Your task to perform on an android device: toggle improve location accuracy Image 0: 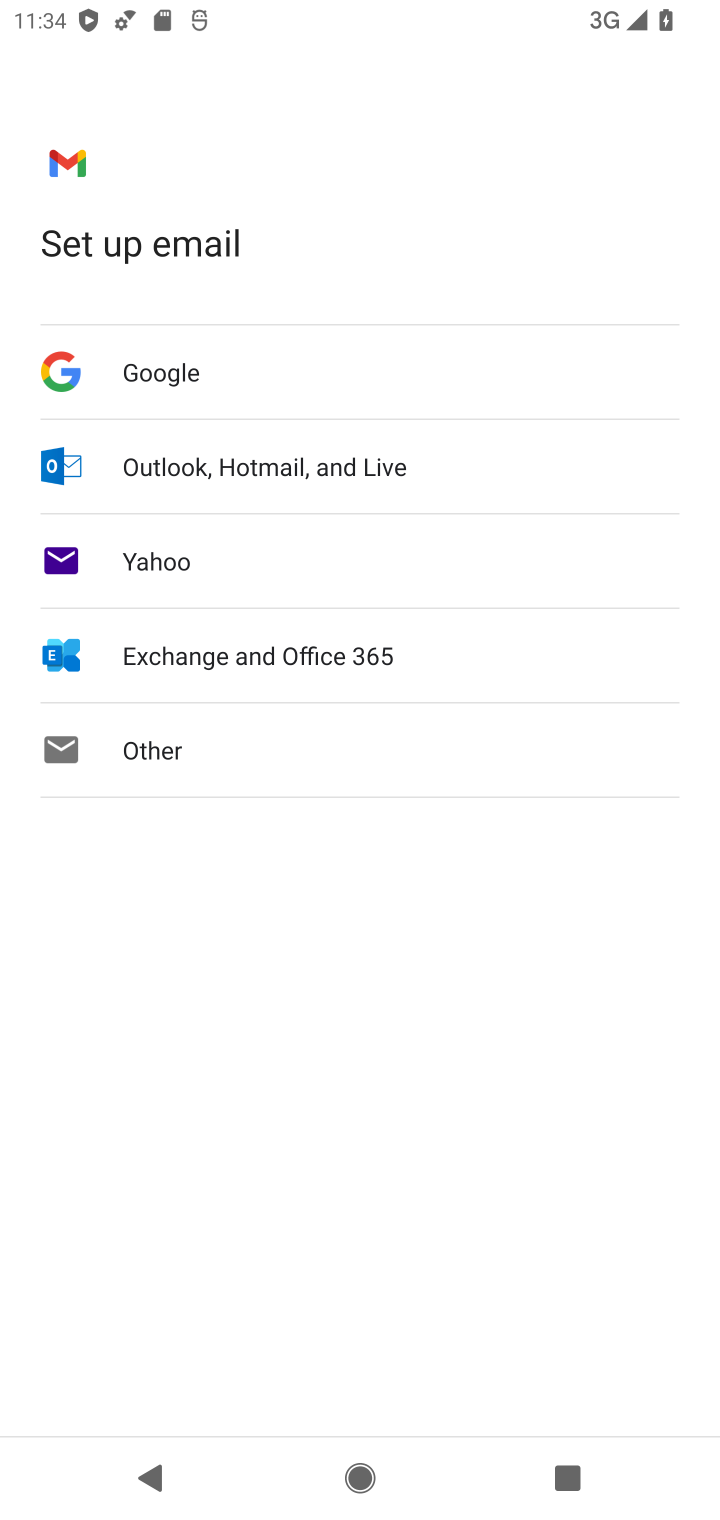
Step 0: press home button
Your task to perform on an android device: toggle improve location accuracy Image 1: 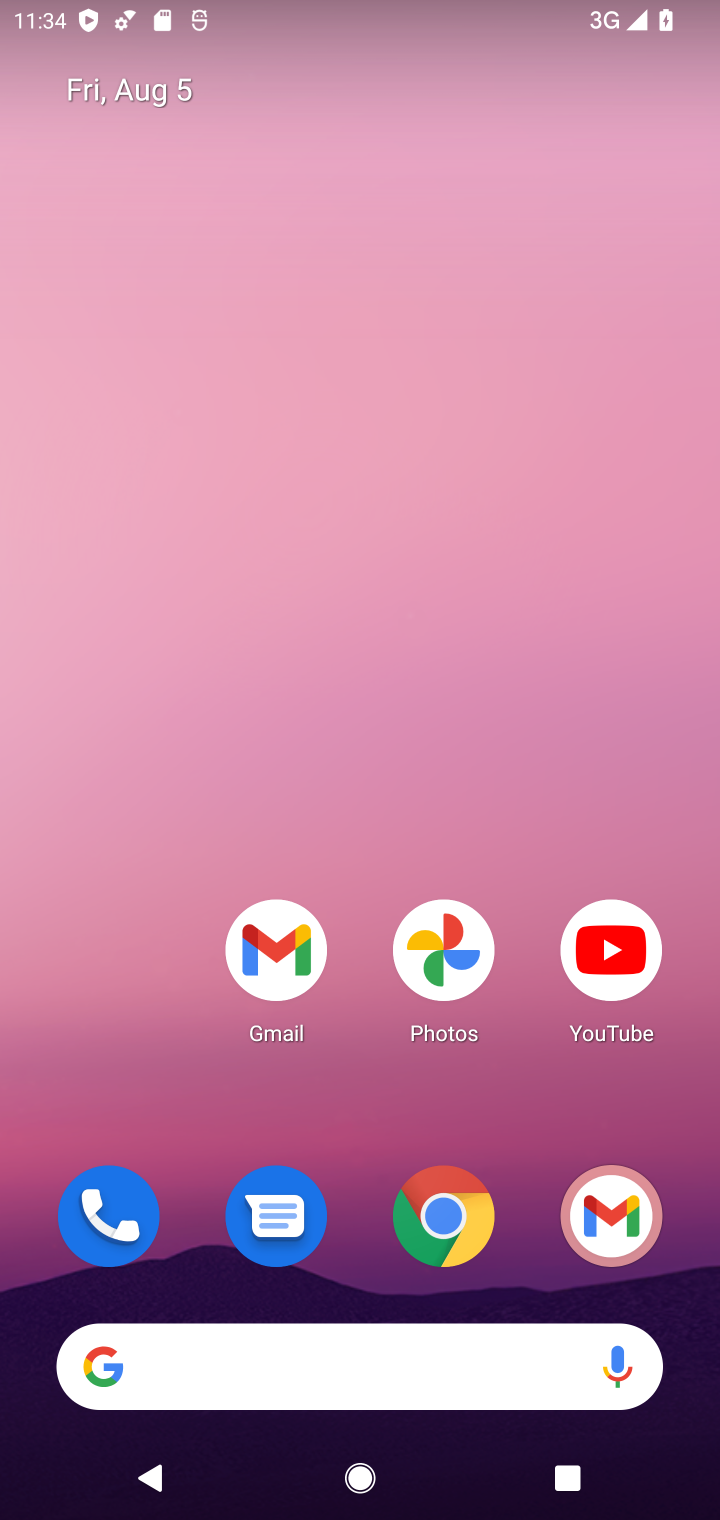
Step 1: drag from (342, 1360) to (361, 165)
Your task to perform on an android device: toggle improve location accuracy Image 2: 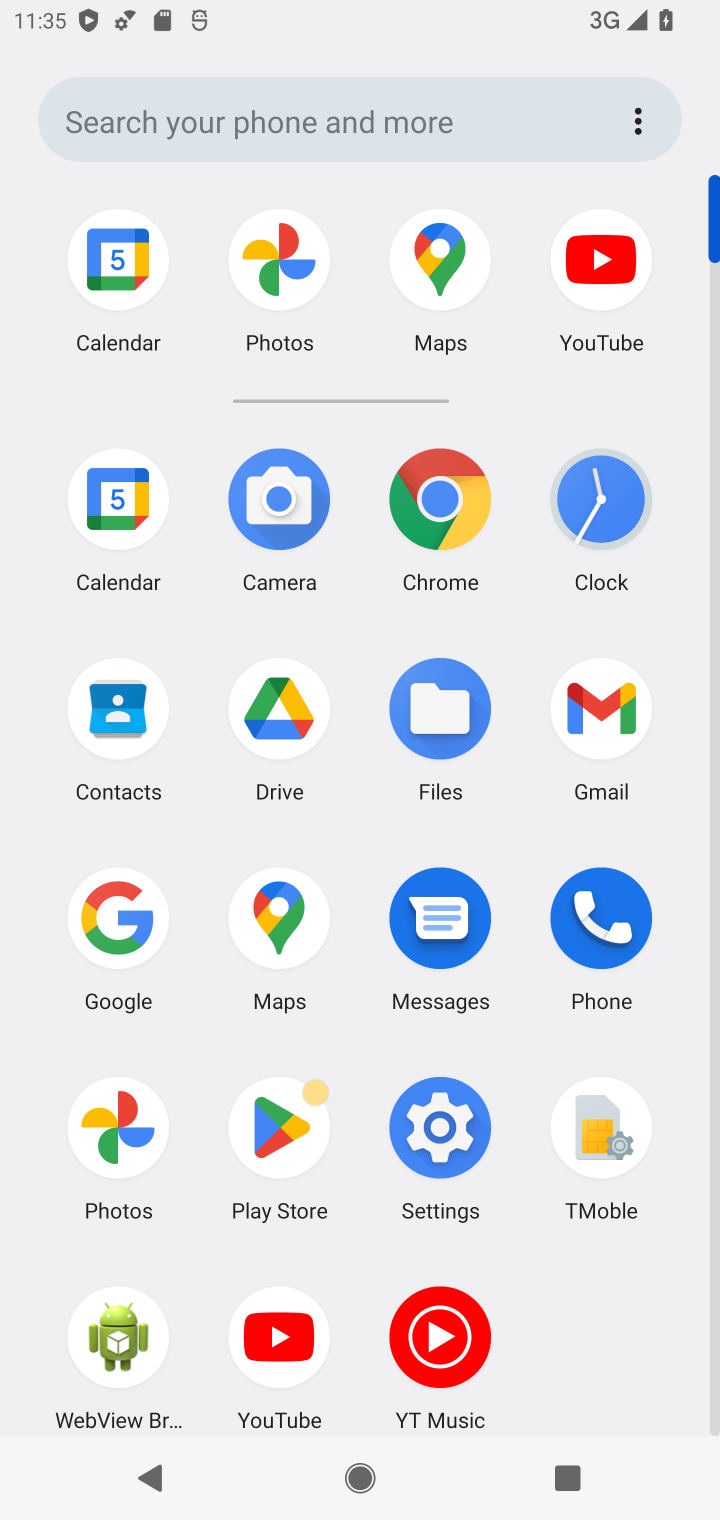
Step 2: click (437, 1128)
Your task to perform on an android device: toggle improve location accuracy Image 3: 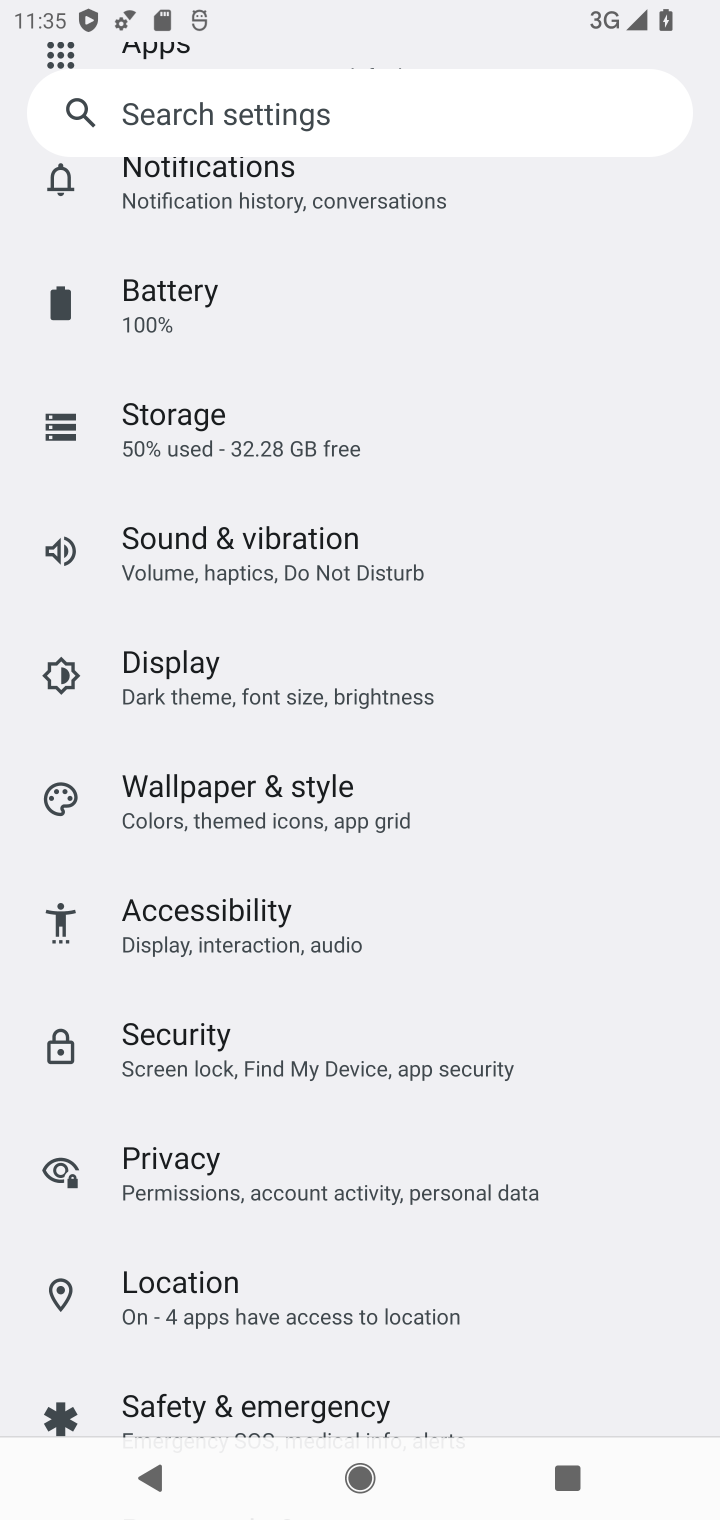
Step 3: click (236, 1285)
Your task to perform on an android device: toggle improve location accuracy Image 4: 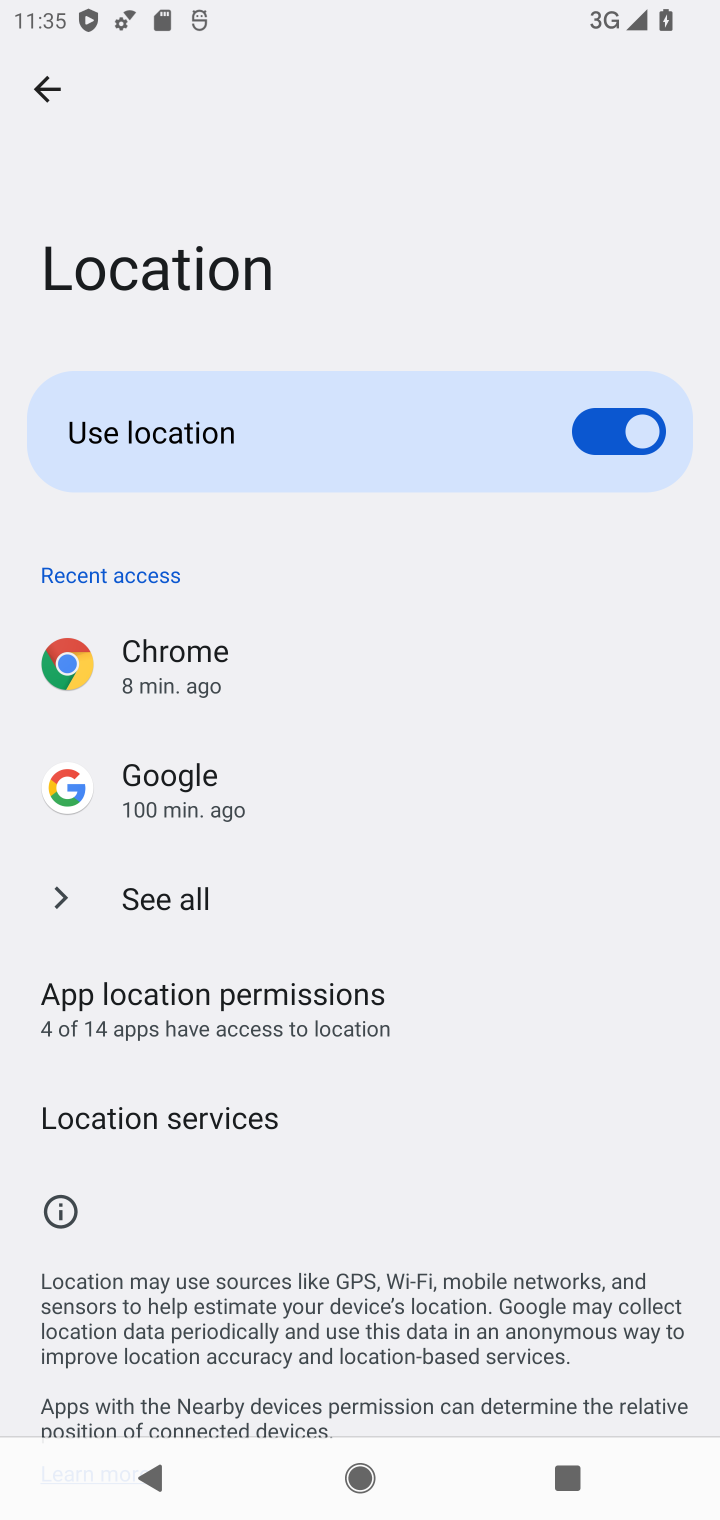
Step 4: click (290, 1124)
Your task to perform on an android device: toggle improve location accuracy Image 5: 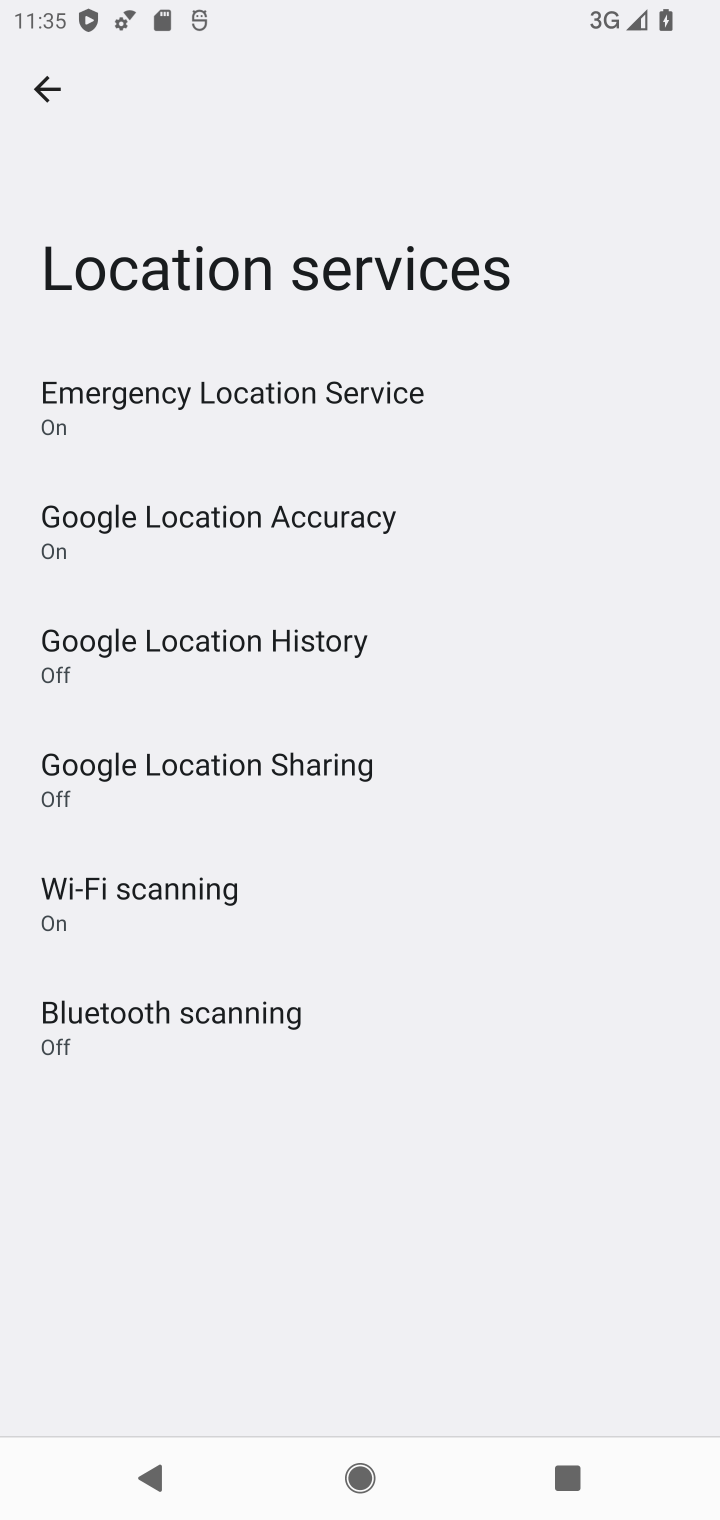
Step 5: click (282, 513)
Your task to perform on an android device: toggle improve location accuracy Image 6: 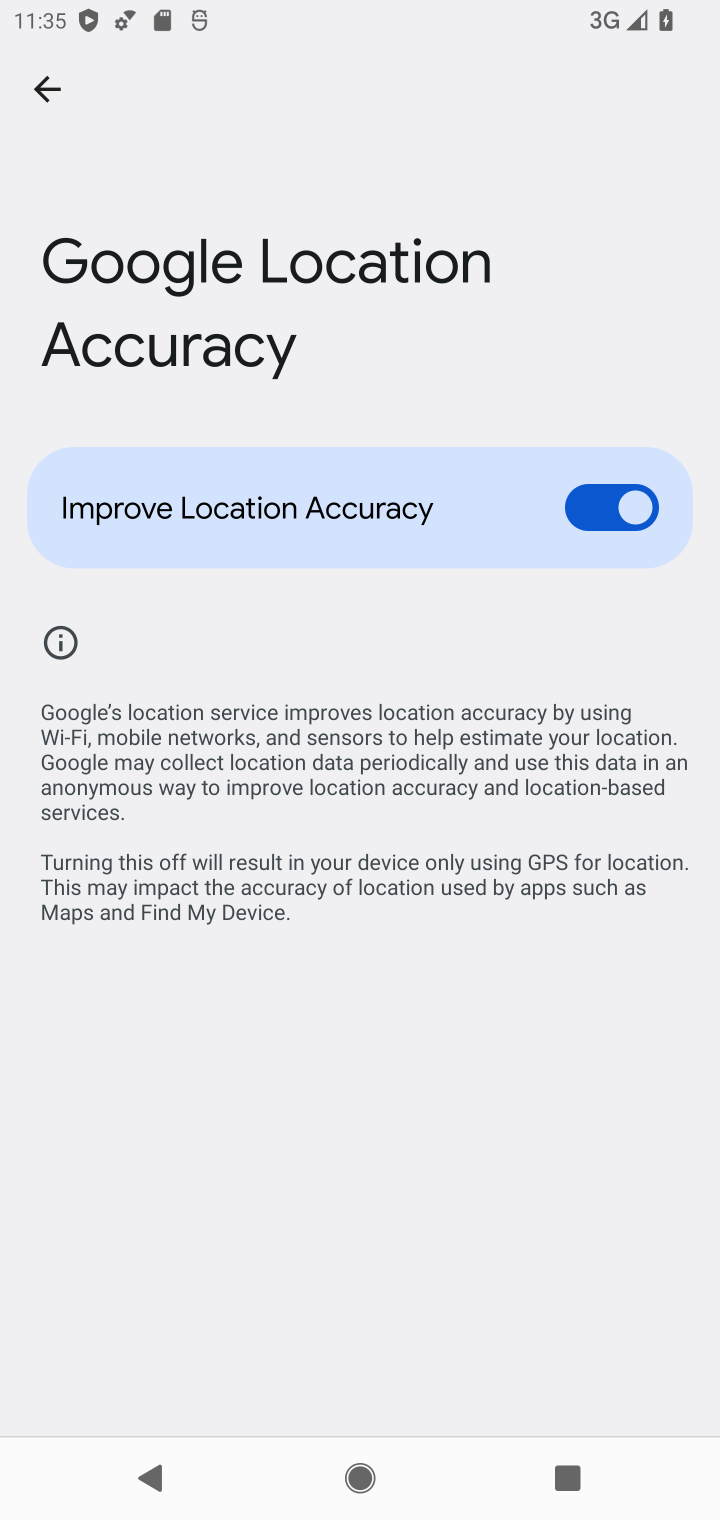
Step 6: click (602, 508)
Your task to perform on an android device: toggle improve location accuracy Image 7: 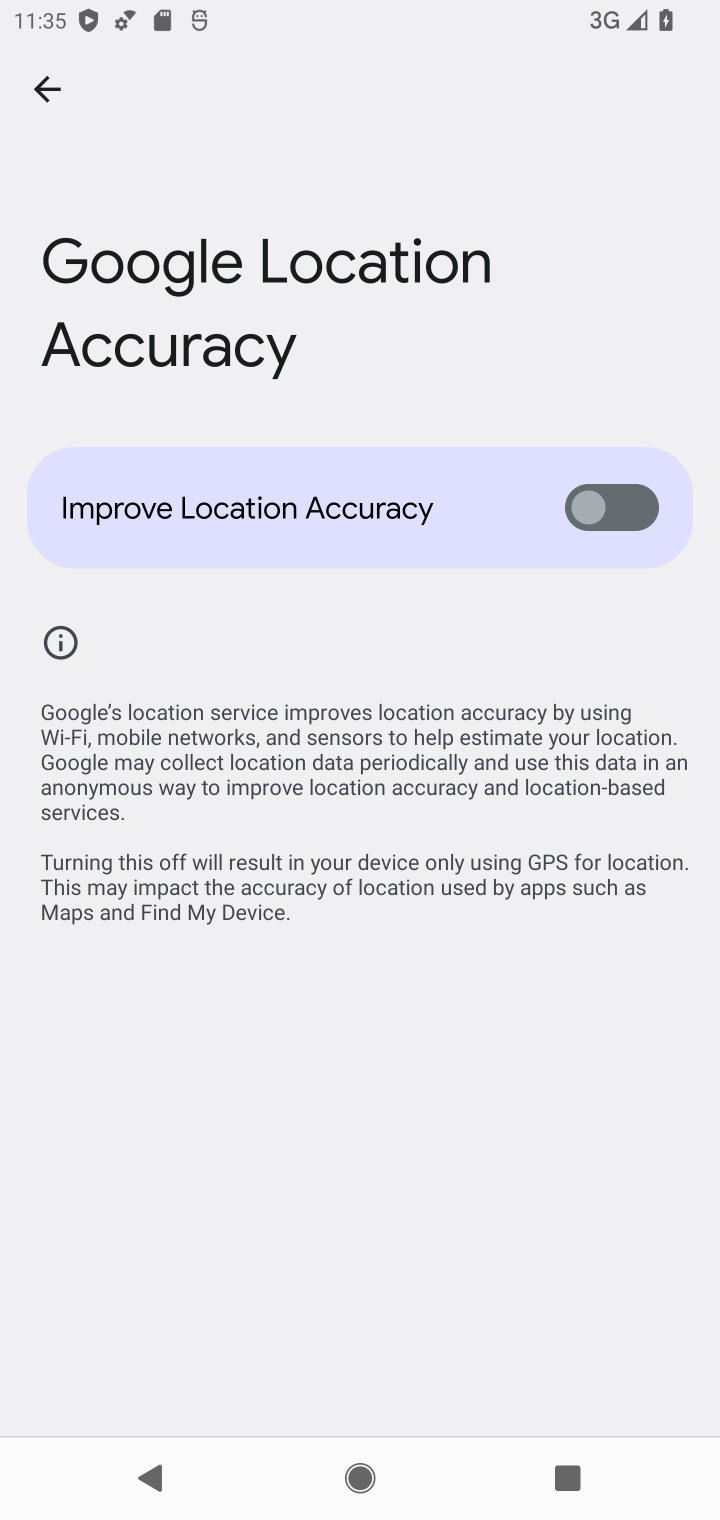
Step 7: task complete